Your task to perform on an android device: check storage Image 0: 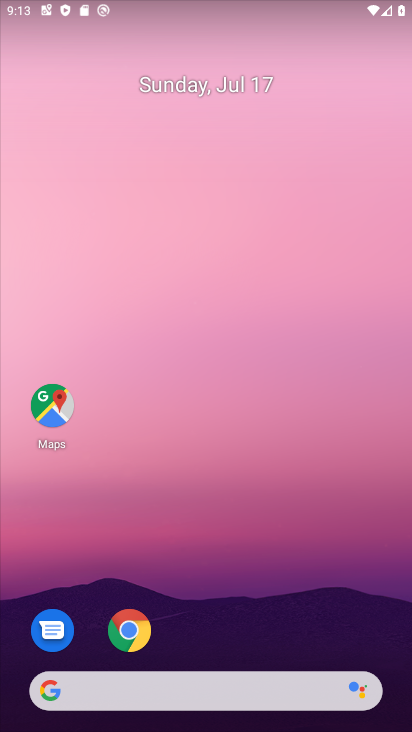
Step 0: drag from (202, 611) to (206, 71)
Your task to perform on an android device: check storage Image 1: 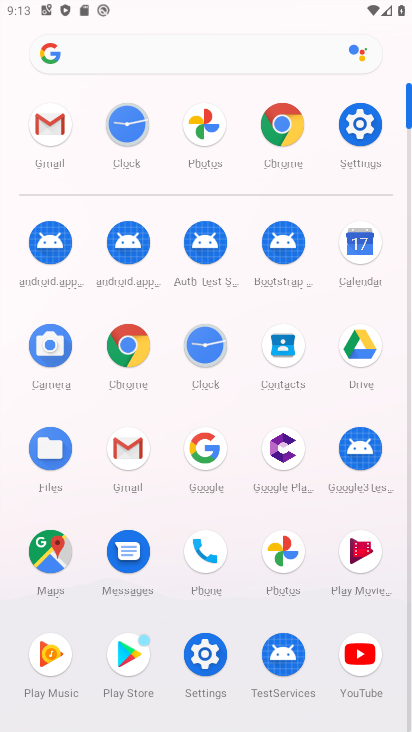
Step 1: click (366, 113)
Your task to perform on an android device: check storage Image 2: 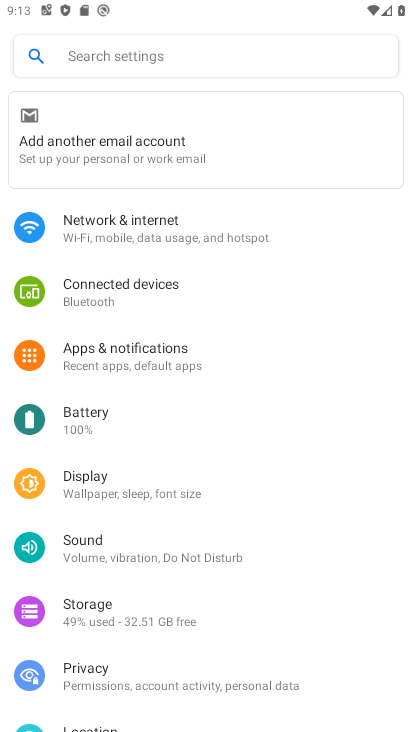
Step 2: click (113, 619)
Your task to perform on an android device: check storage Image 3: 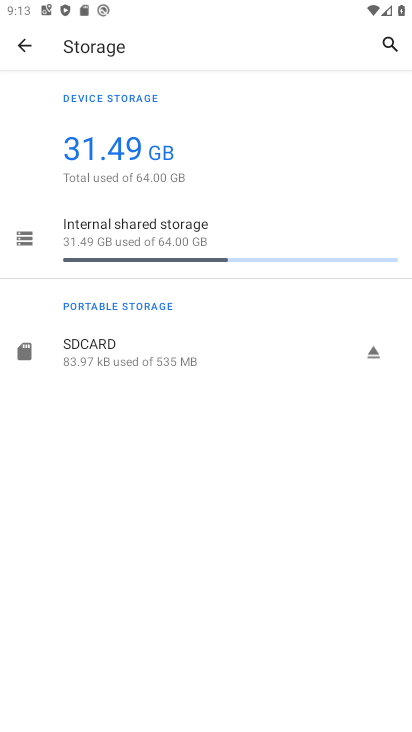
Step 3: task complete